Your task to perform on an android device: delete the emails in spam in the gmail app Image 0: 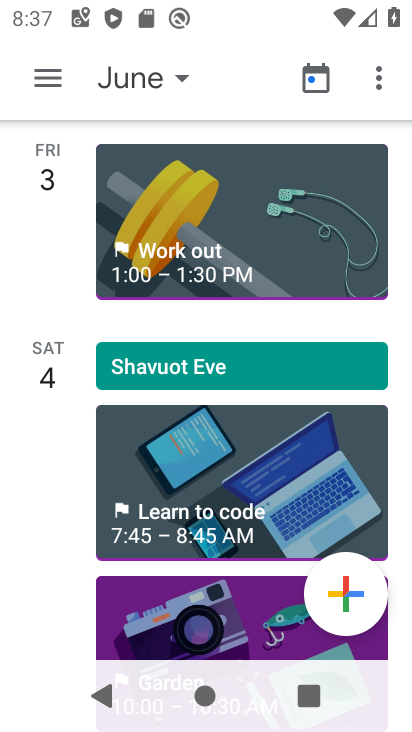
Step 0: drag from (237, 510) to (160, 8)
Your task to perform on an android device: delete the emails in spam in the gmail app Image 1: 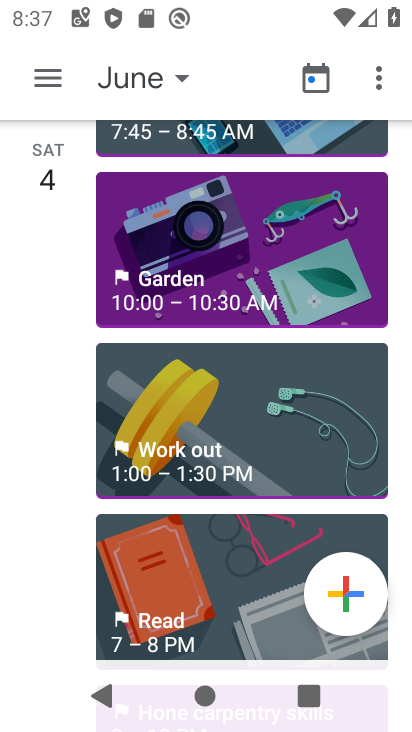
Step 1: press home button
Your task to perform on an android device: delete the emails in spam in the gmail app Image 2: 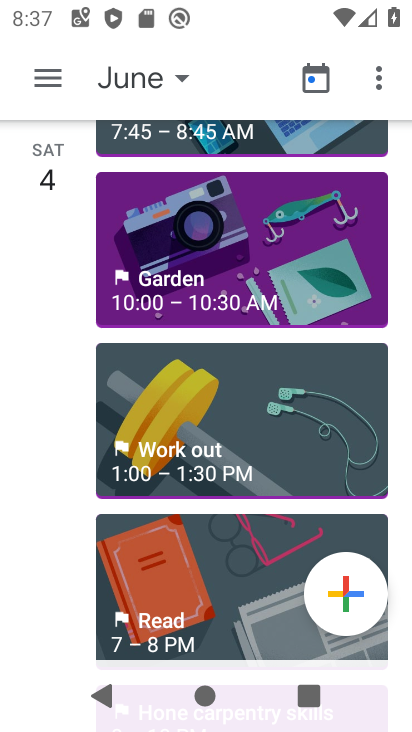
Step 2: press home button
Your task to perform on an android device: delete the emails in spam in the gmail app Image 3: 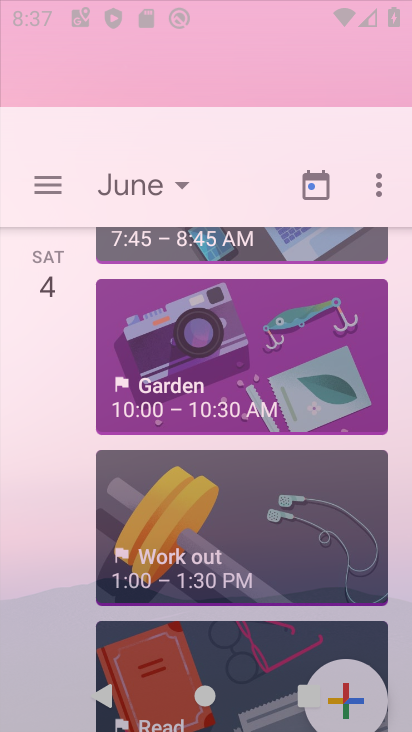
Step 3: drag from (276, 465) to (317, 226)
Your task to perform on an android device: delete the emails in spam in the gmail app Image 4: 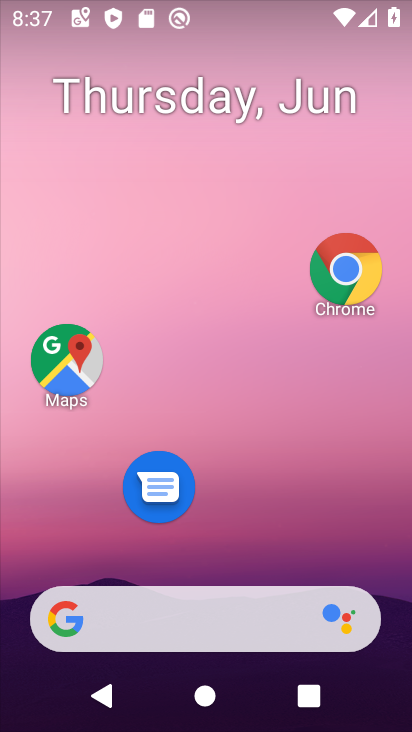
Step 4: drag from (208, 541) to (162, 109)
Your task to perform on an android device: delete the emails in spam in the gmail app Image 5: 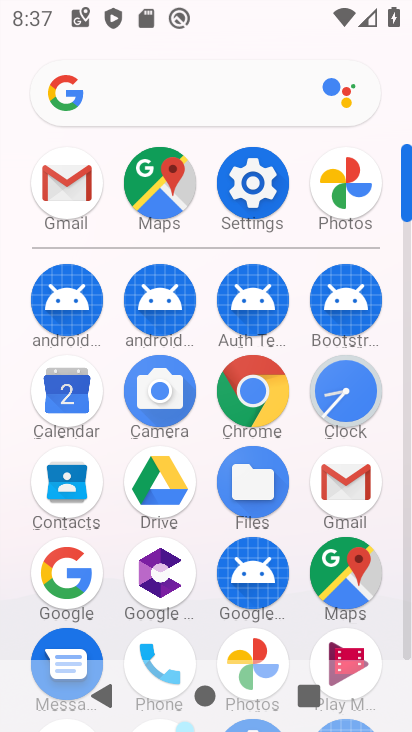
Step 5: drag from (214, 632) to (226, 170)
Your task to perform on an android device: delete the emails in spam in the gmail app Image 6: 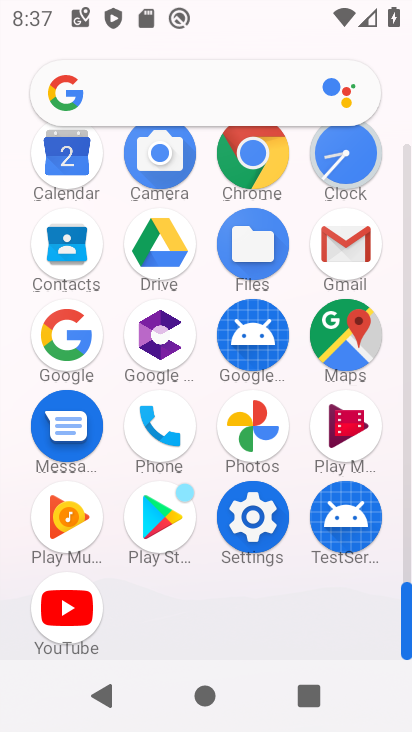
Step 6: click (357, 236)
Your task to perform on an android device: delete the emails in spam in the gmail app Image 7: 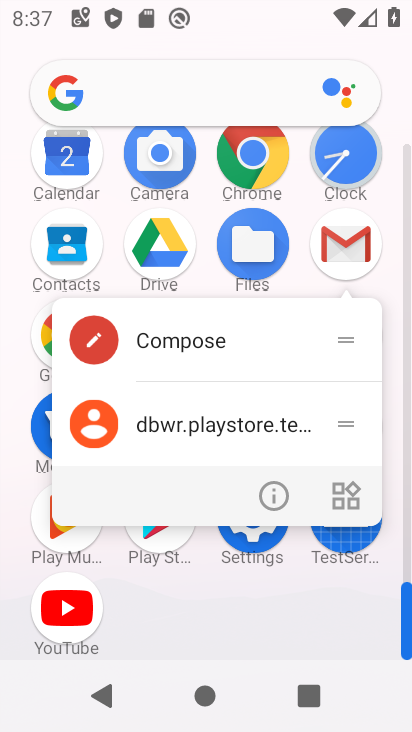
Step 7: click (272, 494)
Your task to perform on an android device: delete the emails in spam in the gmail app Image 8: 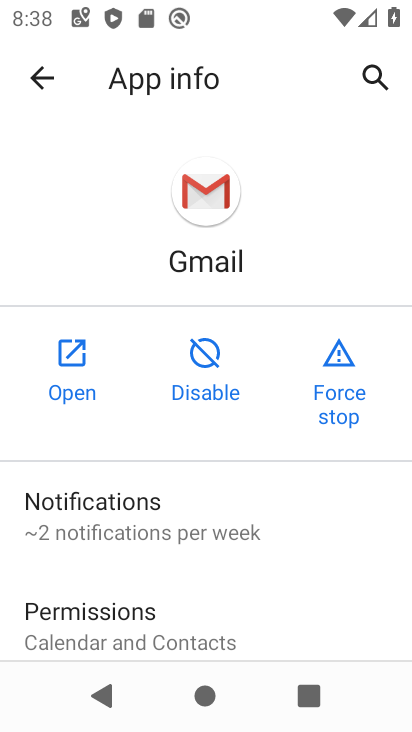
Step 8: click (76, 385)
Your task to perform on an android device: delete the emails in spam in the gmail app Image 9: 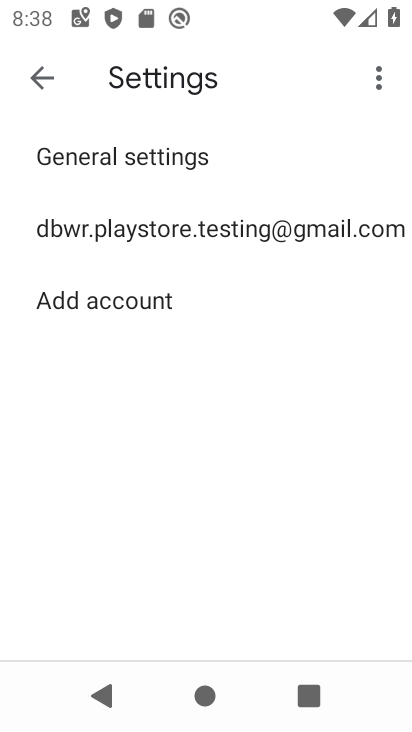
Step 9: click (42, 76)
Your task to perform on an android device: delete the emails in spam in the gmail app Image 10: 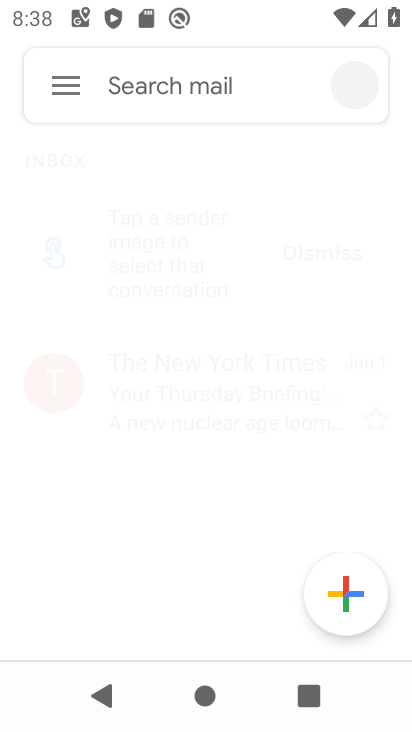
Step 10: click (56, 87)
Your task to perform on an android device: delete the emails in spam in the gmail app Image 11: 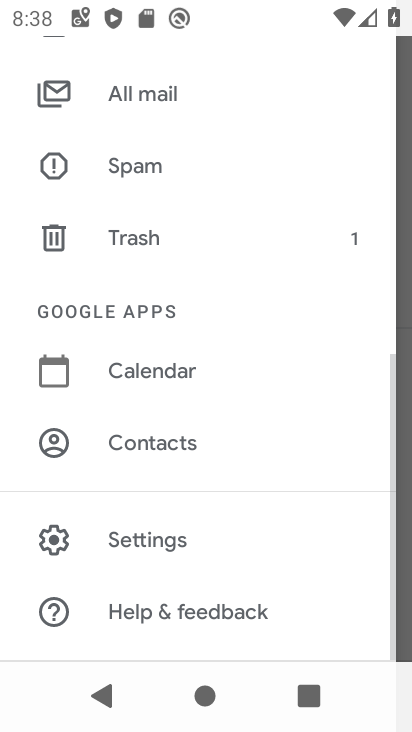
Step 11: drag from (167, 265) to (227, 622)
Your task to perform on an android device: delete the emails in spam in the gmail app Image 12: 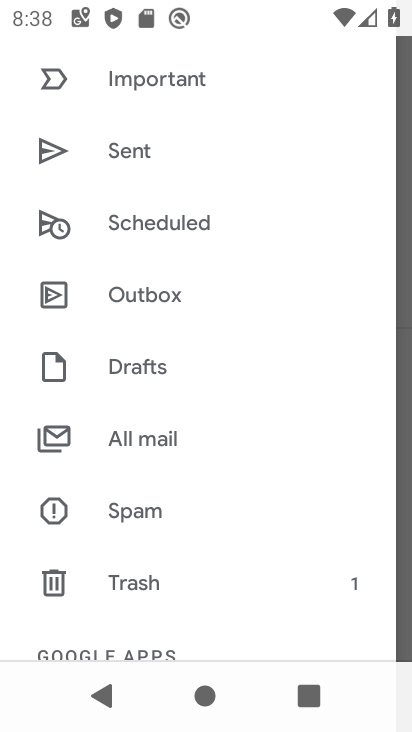
Step 12: click (151, 509)
Your task to perform on an android device: delete the emails in spam in the gmail app Image 13: 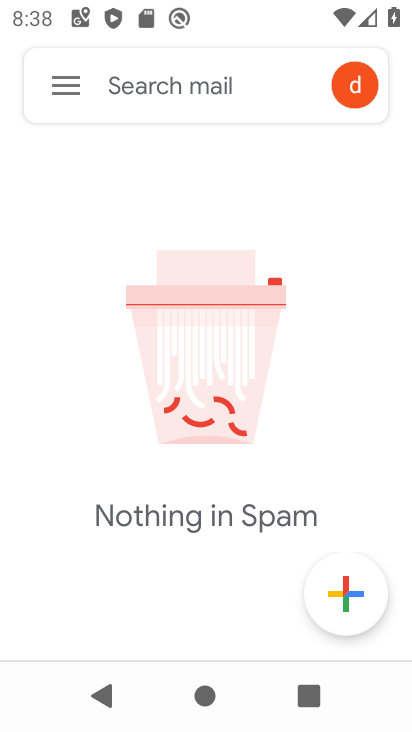
Step 13: task complete